Your task to perform on an android device: make emails show in primary in the gmail app Image 0: 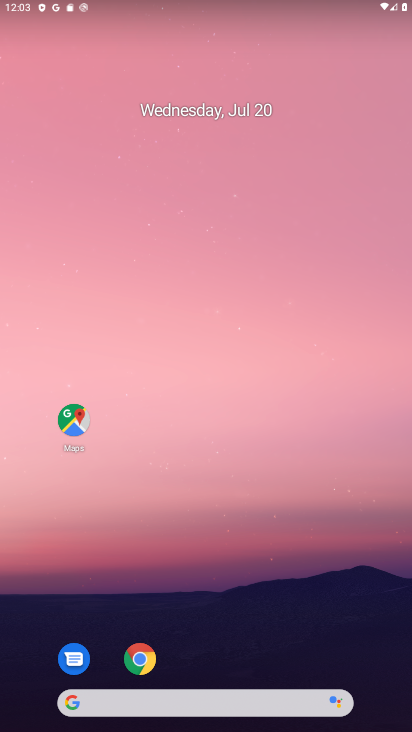
Step 0: press home button
Your task to perform on an android device: make emails show in primary in the gmail app Image 1: 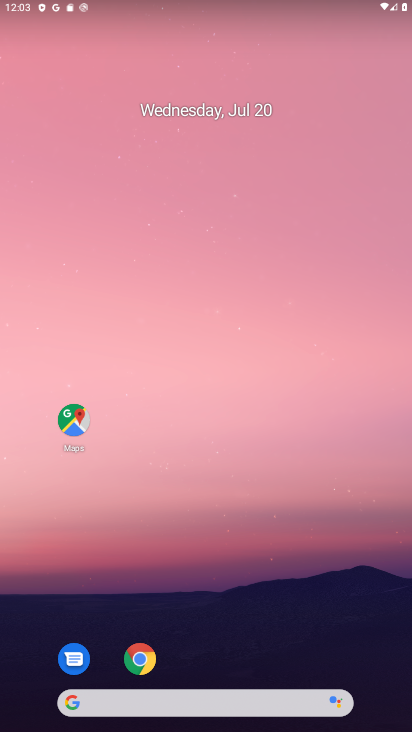
Step 1: drag from (211, 667) to (212, 8)
Your task to perform on an android device: make emails show in primary in the gmail app Image 2: 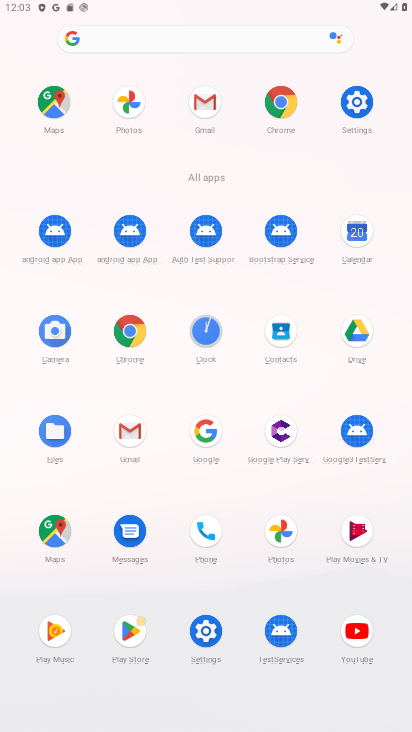
Step 2: click (203, 95)
Your task to perform on an android device: make emails show in primary in the gmail app Image 3: 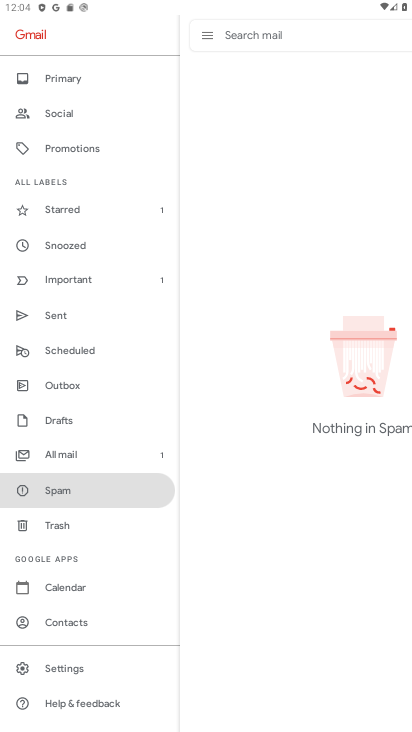
Step 3: click (92, 668)
Your task to perform on an android device: make emails show in primary in the gmail app Image 4: 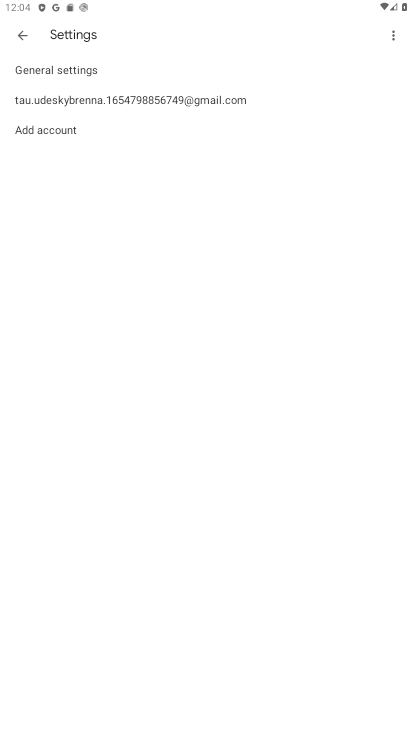
Step 4: click (251, 95)
Your task to perform on an android device: make emails show in primary in the gmail app Image 5: 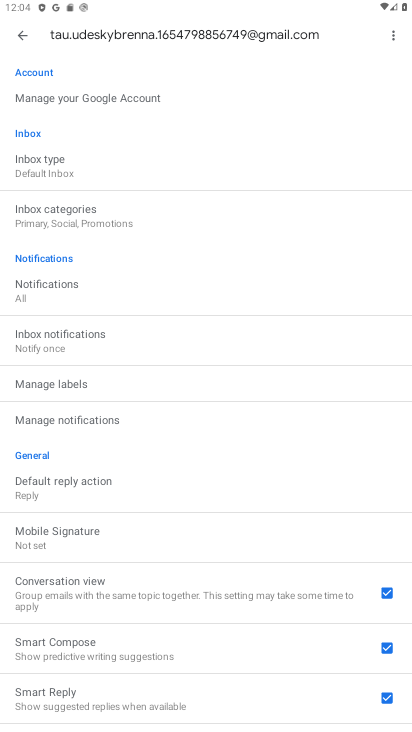
Step 5: click (87, 168)
Your task to perform on an android device: make emails show in primary in the gmail app Image 6: 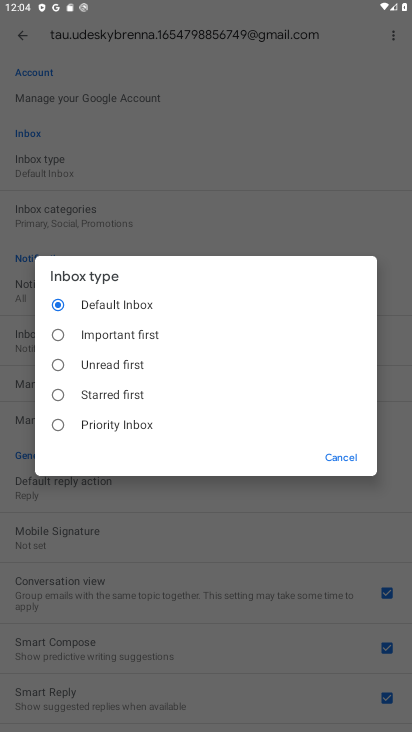
Step 6: click (85, 307)
Your task to perform on an android device: make emails show in primary in the gmail app Image 7: 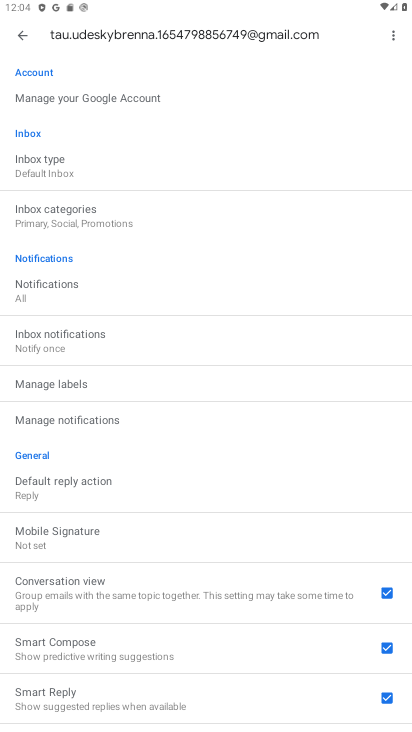
Step 7: task complete